Your task to perform on an android device: read, delete, or share a saved page in the chrome app Image 0: 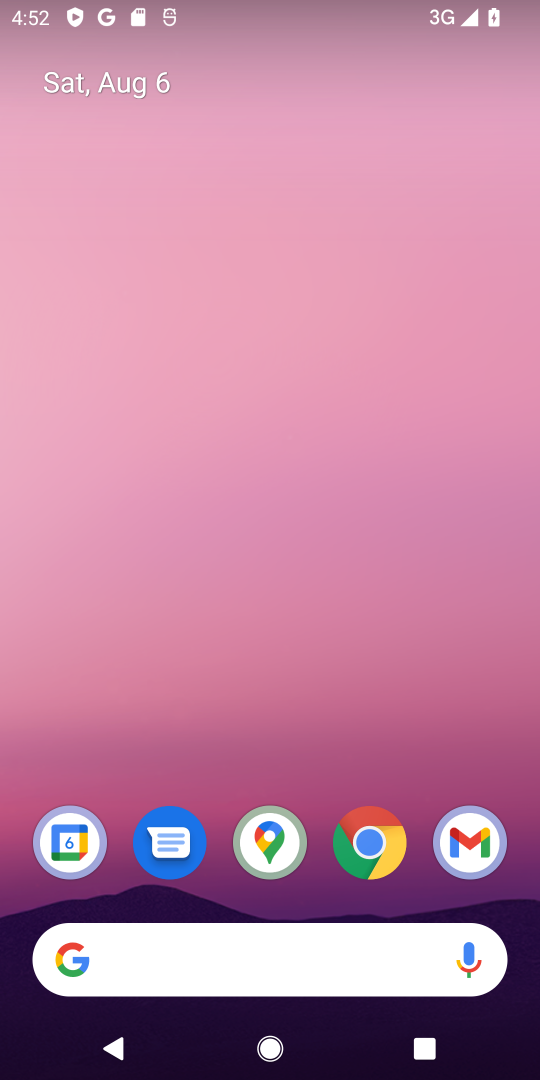
Step 0: click (372, 837)
Your task to perform on an android device: read, delete, or share a saved page in the chrome app Image 1: 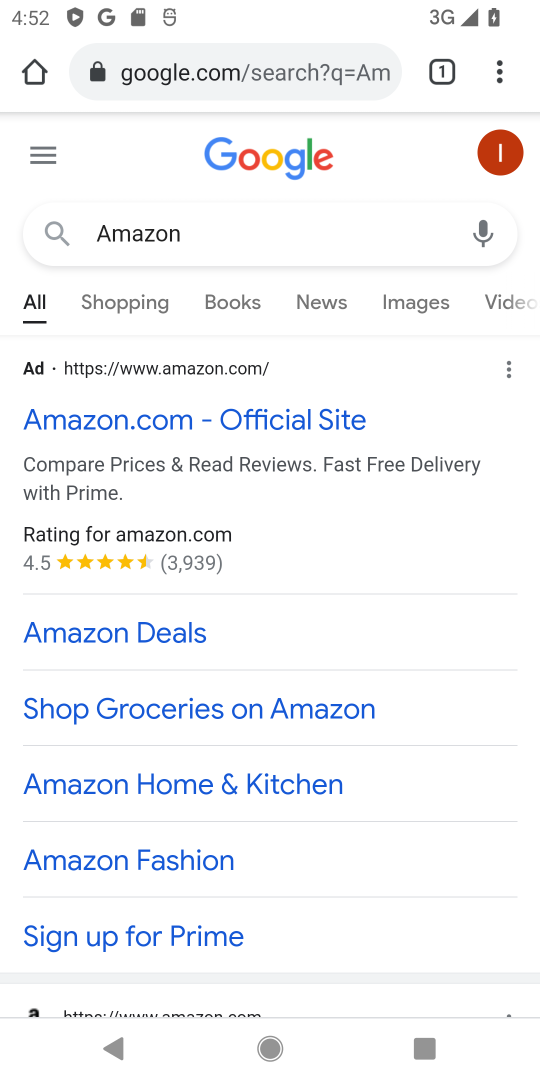
Step 1: click (500, 70)
Your task to perform on an android device: read, delete, or share a saved page in the chrome app Image 2: 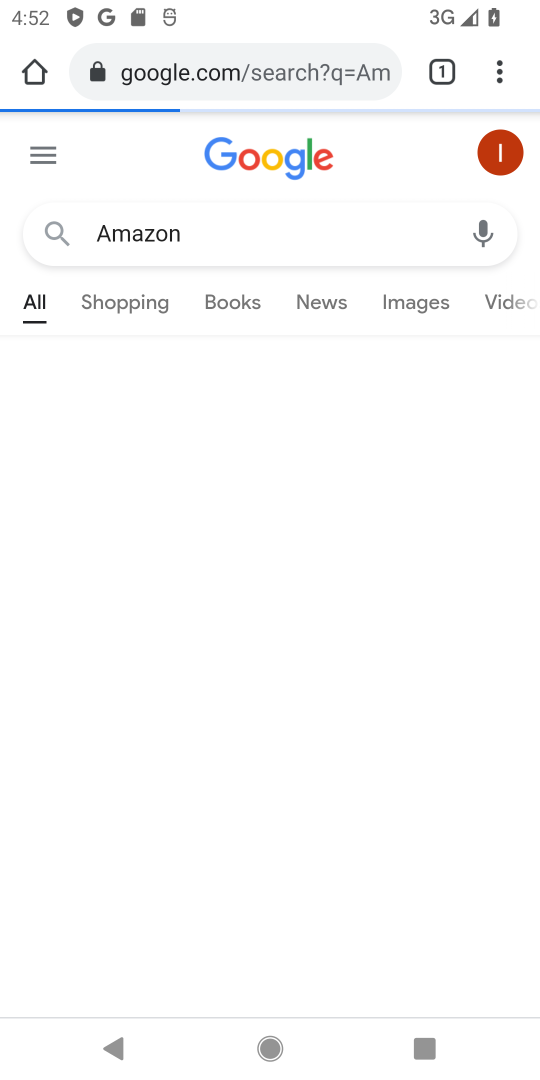
Step 2: click (500, 74)
Your task to perform on an android device: read, delete, or share a saved page in the chrome app Image 3: 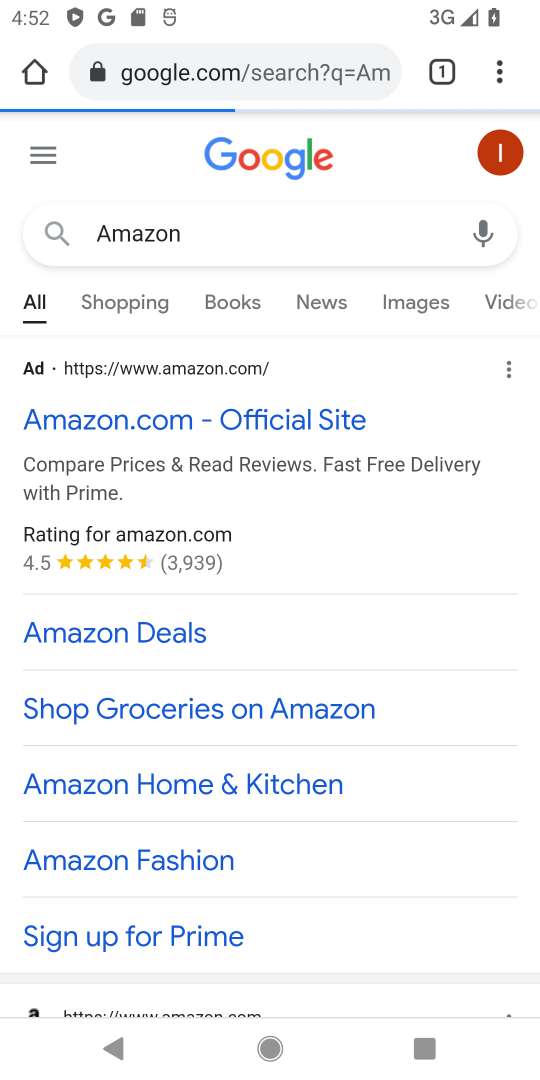
Step 3: click (500, 74)
Your task to perform on an android device: read, delete, or share a saved page in the chrome app Image 4: 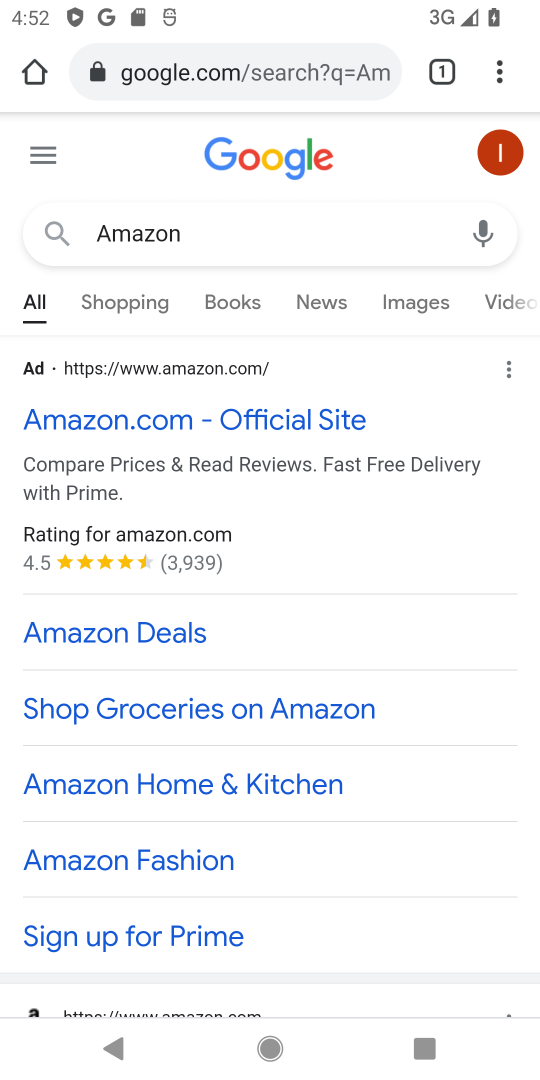
Step 4: click (500, 74)
Your task to perform on an android device: read, delete, or share a saved page in the chrome app Image 5: 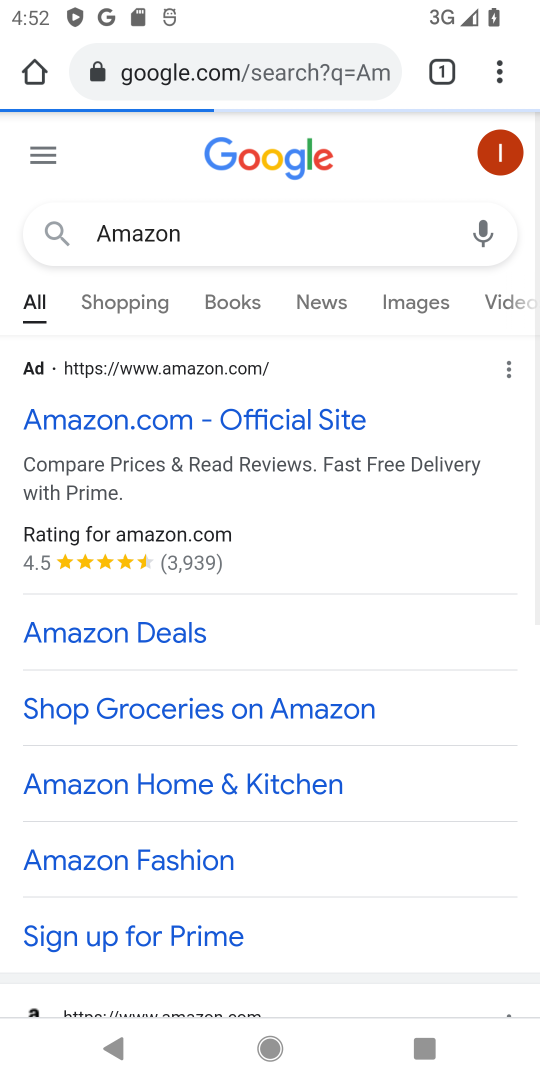
Step 5: click (500, 74)
Your task to perform on an android device: read, delete, or share a saved page in the chrome app Image 6: 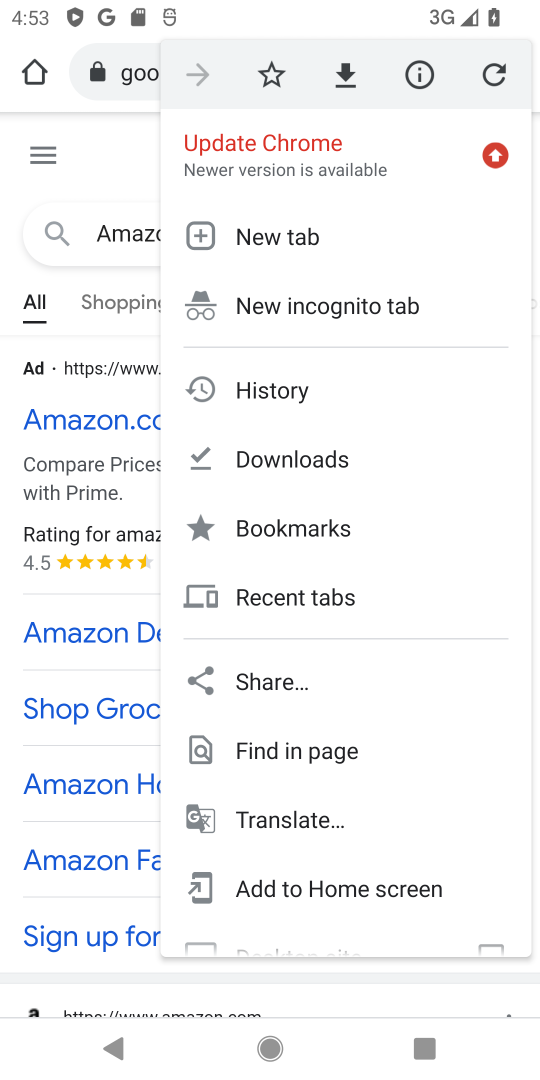
Step 6: click (312, 454)
Your task to perform on an android device: read, delete, or share a saved page in the chrome app Image 7: 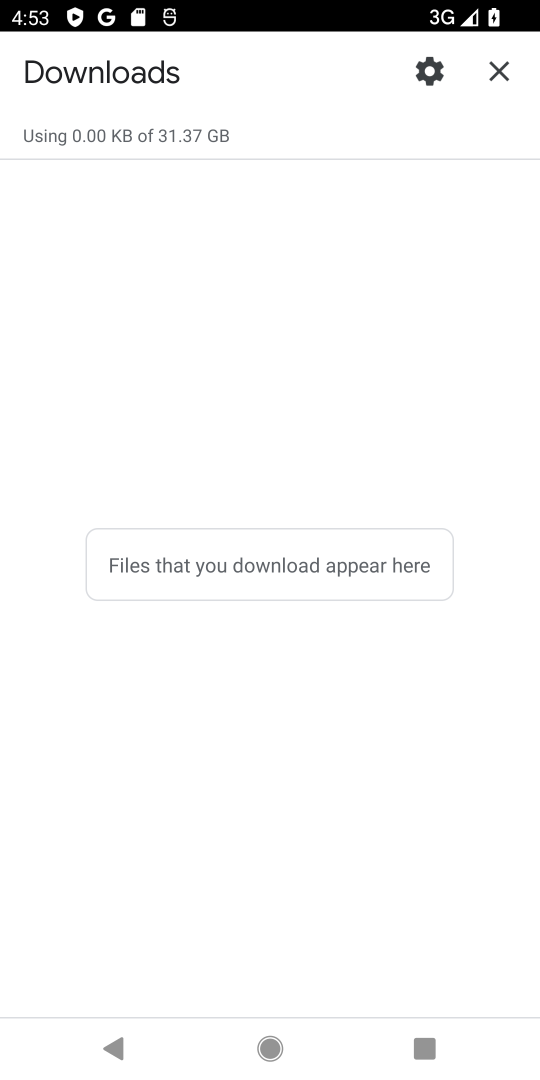
Step 7: task complete